Your task to perform on an android device: choose inbox layout in the gmail app Image 0: 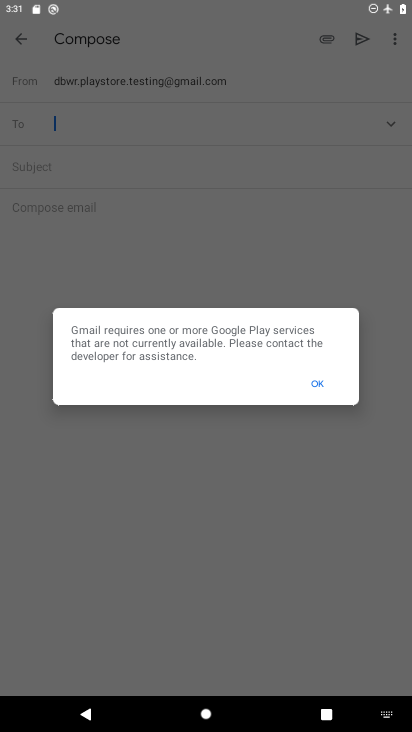
Step 0: press home button
Your task to perform on an android device: choose inbox layout in the gmail app Image 1: 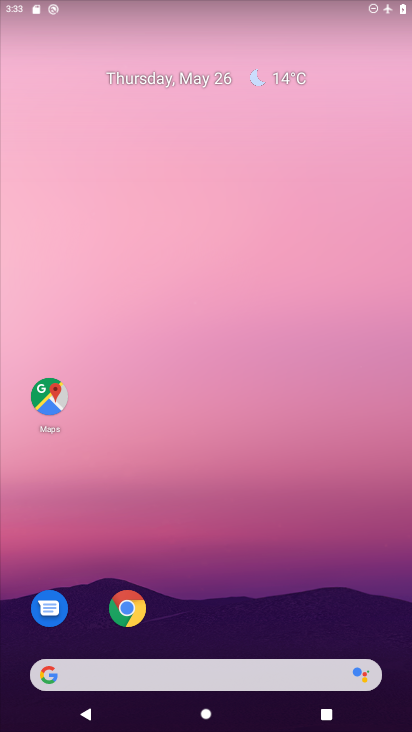
Step 1: drag from (234, 515) to (212, 157)
Your task to perform on an android device: choose inbox layout in the gmail app Image 2: 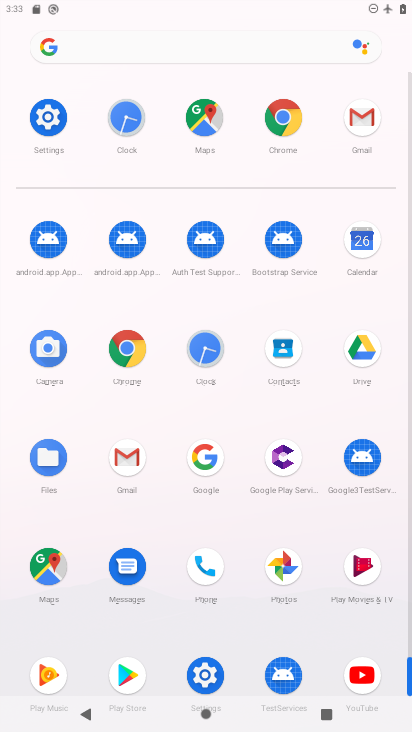
Step 2: click (348, 132)
Your task to perform on an android device: choose inbox layout in the gmail app Image 3: 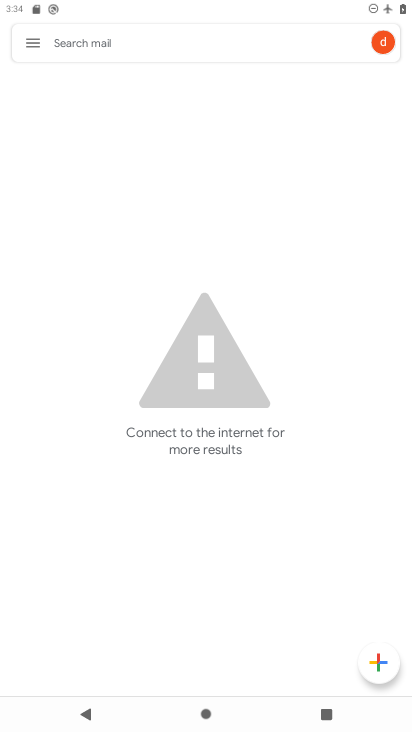
Step 3: task complete